Your task to perform on an android device: change the upload size in google photos Image 0: 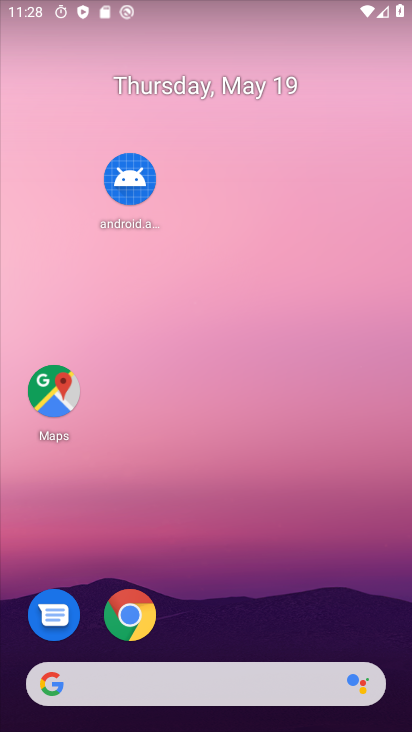
Step 0: drag from (317, 591) to (242, 67)
Your task to perform on an android device: change the upload size in google photos Image 1: 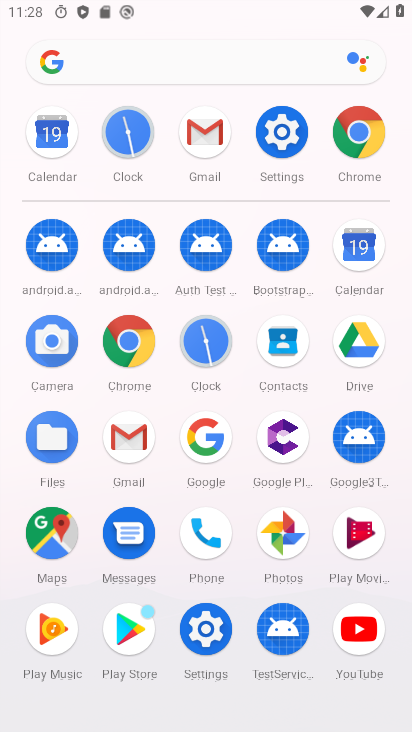
Step 1: click (291, 549)
Your task to perform on an android device: change the upload size in google photos Image 2: 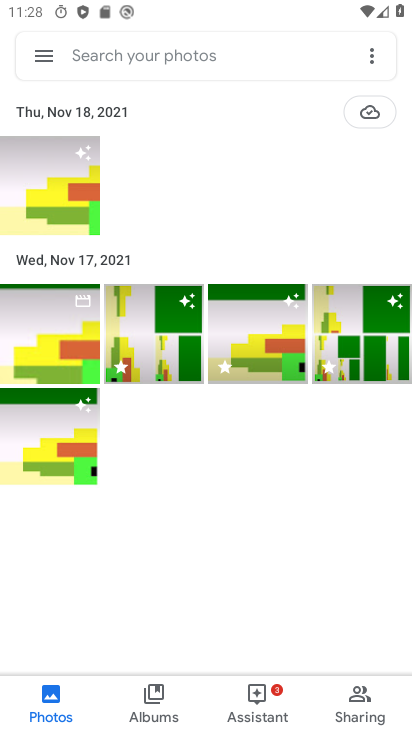
Step 2: click (33, 52)
Your task to perform on an android device: change the upload size in google photos Image 3: 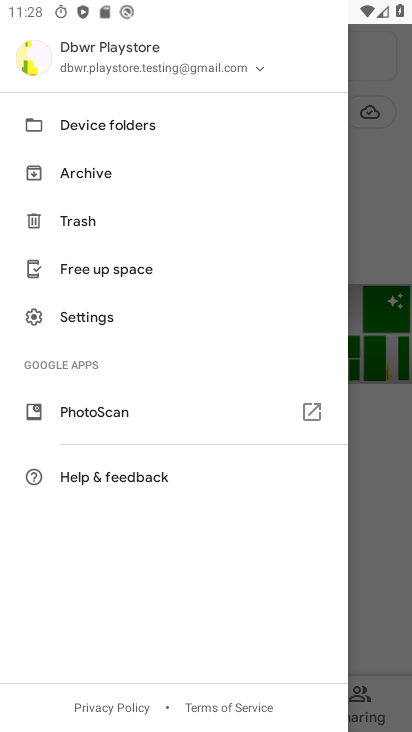
Step 3: click (56, 311)
Your task to perform on an android device: change the upload size in google photos Image 4: 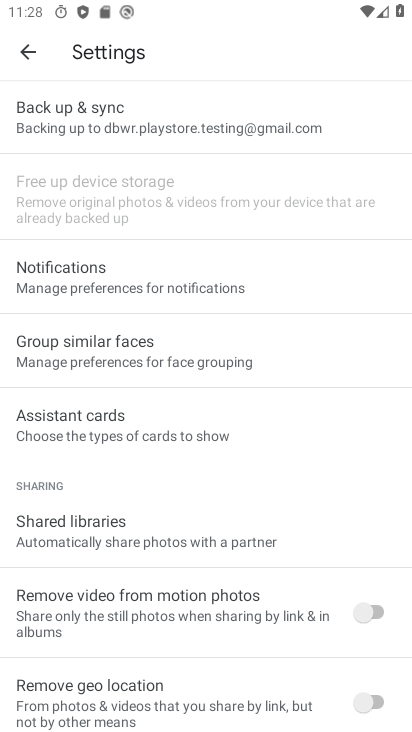
Step 4: click (80, 122)
Your task to perform on an android device: change the upload size in google photos Image 5: 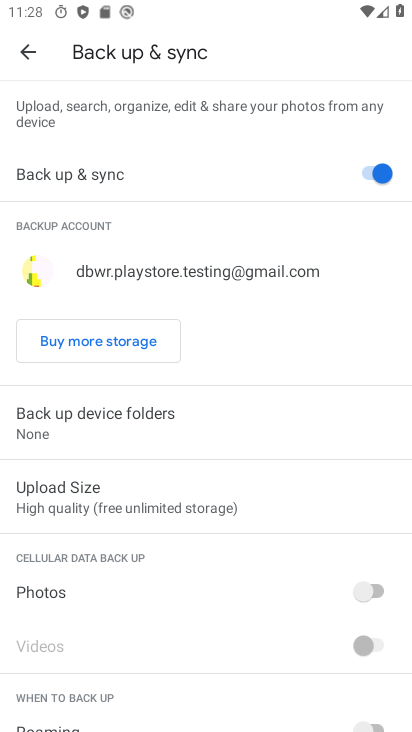
Step 5: click (184, 491)
Your task to perform on an android device: change the upload size in google photos Image 6: 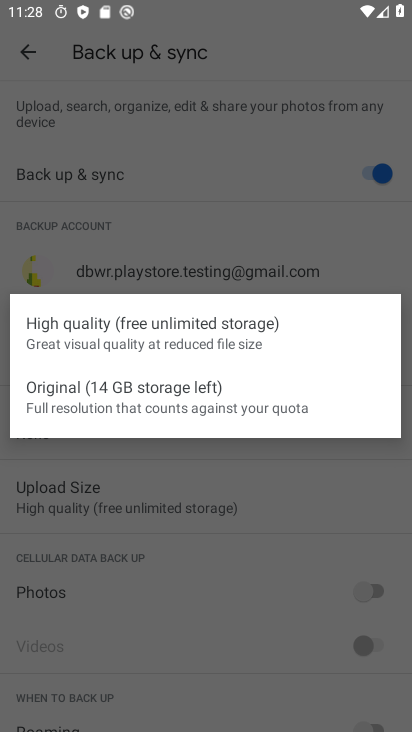
Step 6: click (134, 417)
Your task to perform on an android device: change the upload size in google photos Image 7: 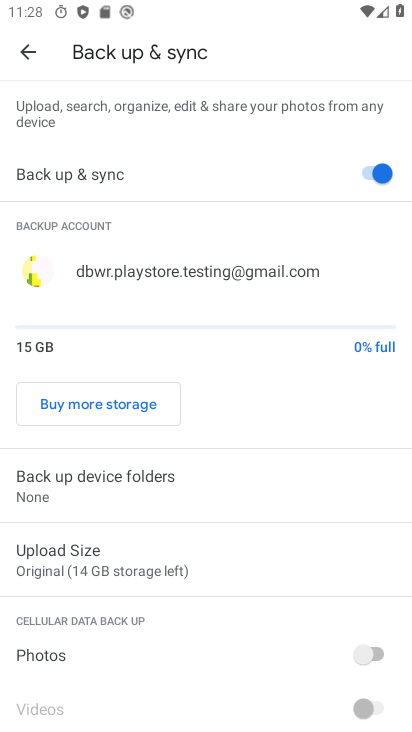
Step 7: task complete